Your task to perform on an android device: check the backup settings in the google photos Image 0: 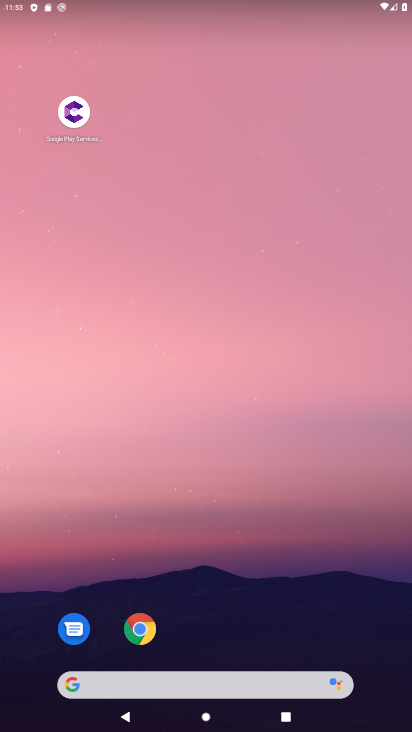
Step 0: drag from (217, 615) to (339, 195)
Your task to perform on an android device: check the backup settings in the google photos Image 1: 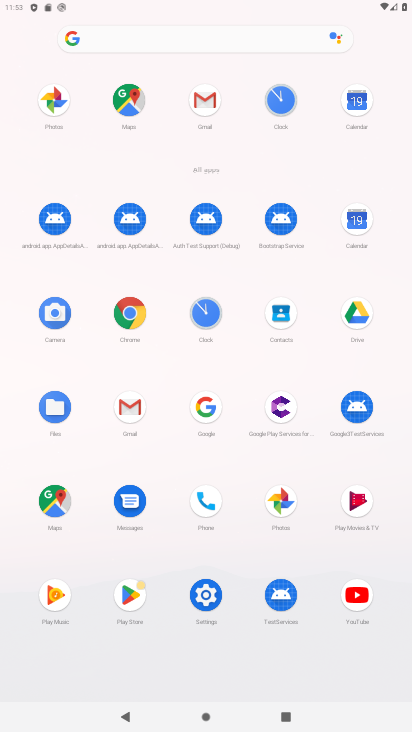
Step 1: click (282, 503)
Your task to perform on an android device: check the backup settings in the google photos Image 2: 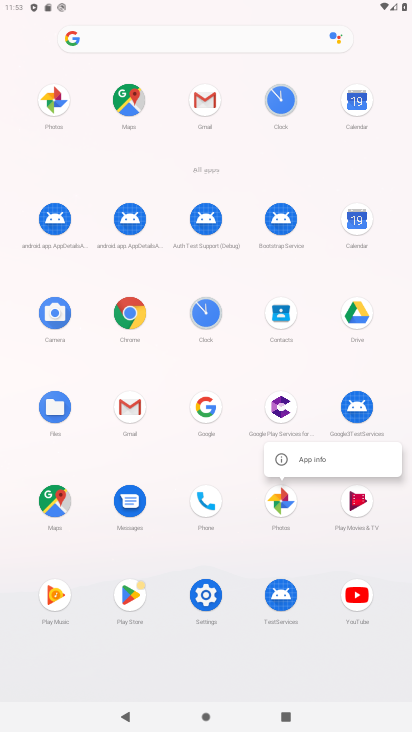
Step 2: click (314, 469)
Your task to perform on an android device: check the backup settings in the google photos Image 3: 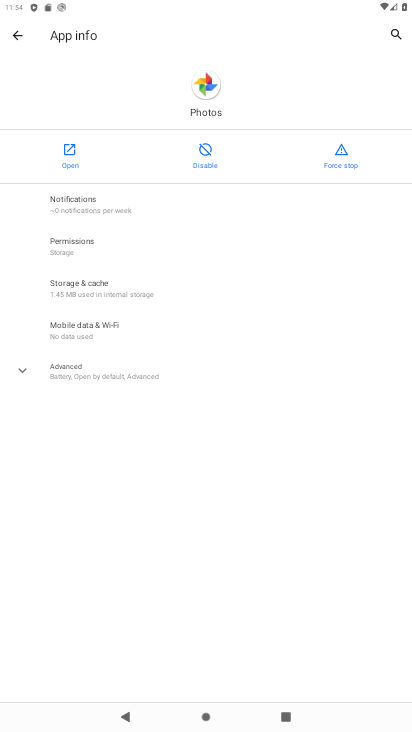
Step 3: click (74, 166)
Your task to perform on an android device: check the backup settings in the google photos Image 4: 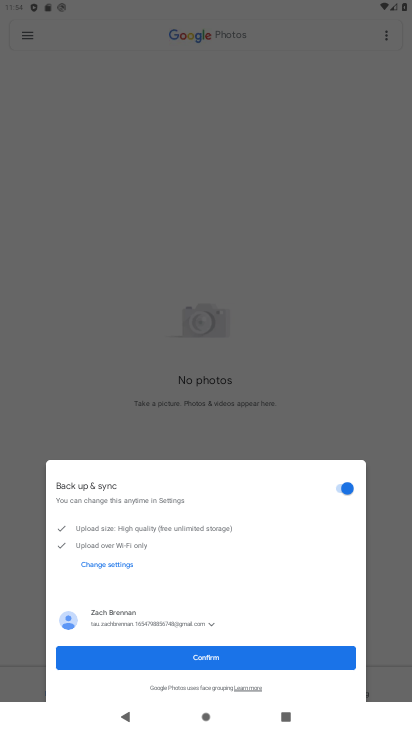
Step 4: click (214, 662)
Your task to perform on an android device: check the backup settings in the google photos Image 5: 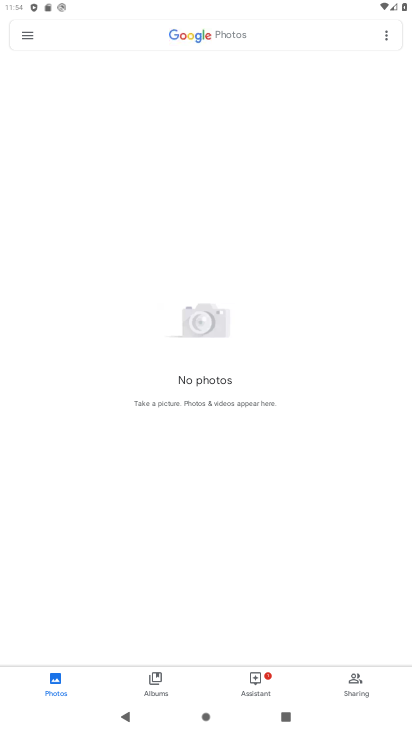
Step 5: click (22, 35)
Your task to perform on an android device: check the backup settings in the google photos Image 6: 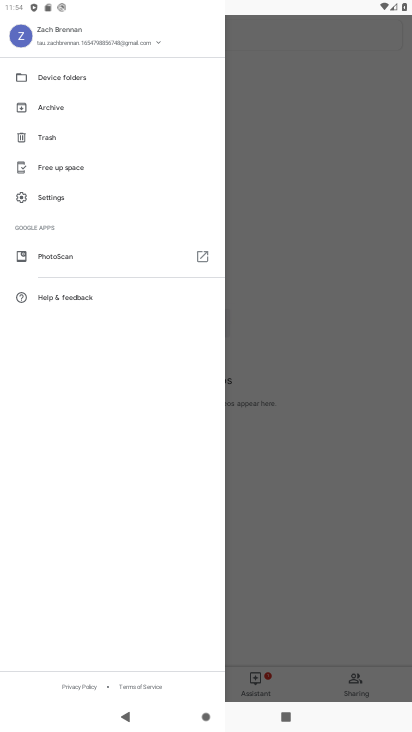
Step 6: click (67, 198)
Your task to perform on an android device: check the backup settings in the google photos Image 7: 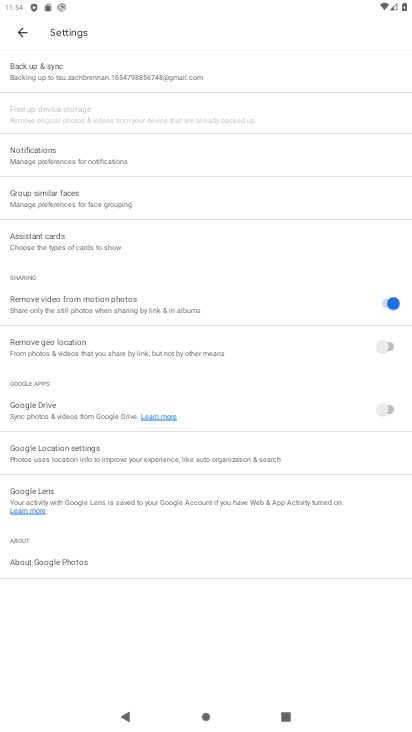
Step 7: click (123, 76)
Your task to perform on an android device: check the backup settings in the google photos Image 8: 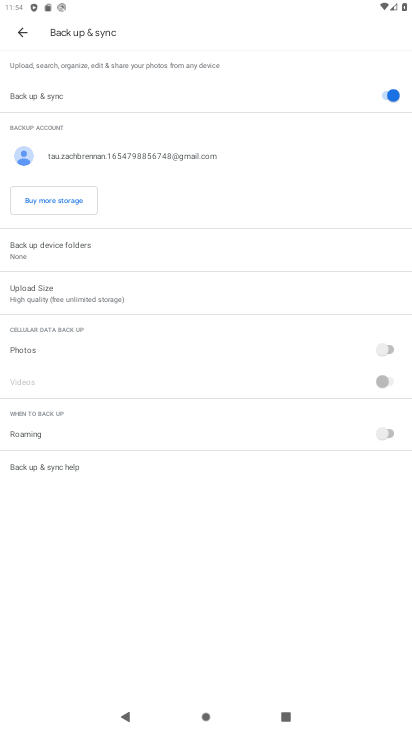
Step 8: task complete